Your task to perform on an android device: Go to Android settings Image 0: 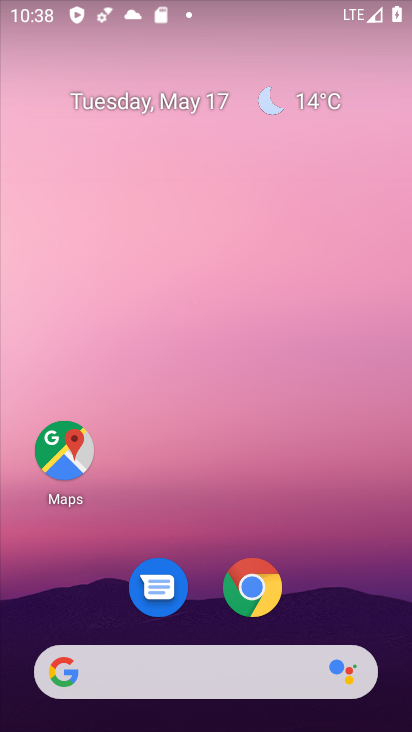
Step 0: drag from (327, 558) to (290, 346)
Your task to perform on an android device: Go to Android settings Image 1: 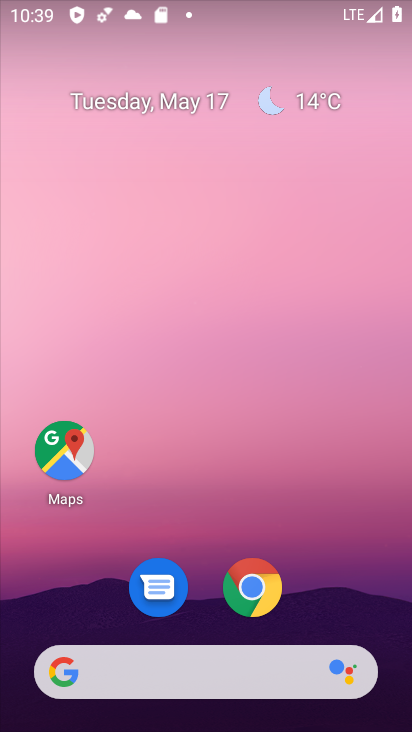
Step 1: drag from (325, 565) to (256, 270)
Your task to perform on an android device: Go to Android settings Image 2: 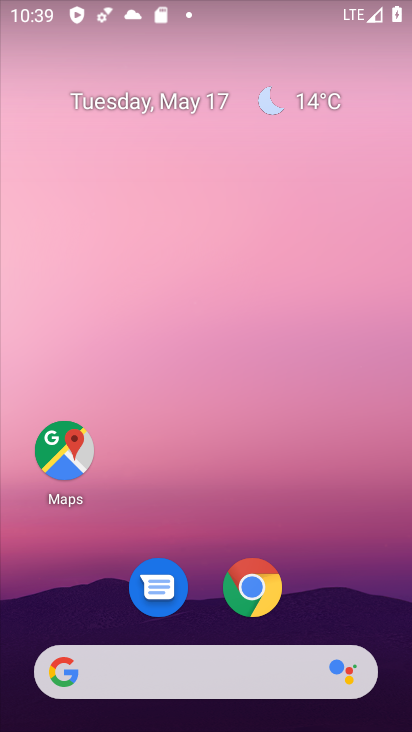
Step 2: drag from (334, 573) to (258, 294)
Your task to perform on an android device: Go to Android settings Image 3: 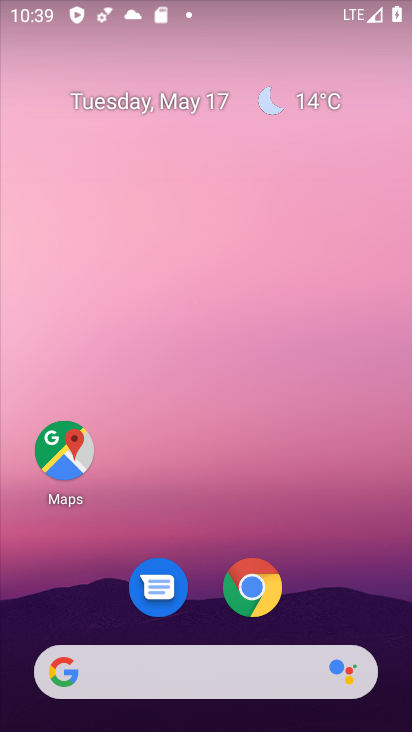
Step 3: drag from (335, 551) to (226, 138)
Your task to perform on an android device: Go to Android settings Image 4: 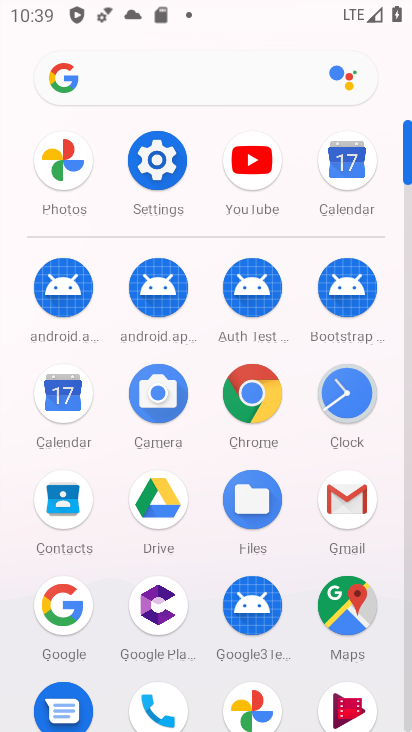
Step 4: click (168, 169)
Your task to perform on an android device: Go to Android settings Image 5: 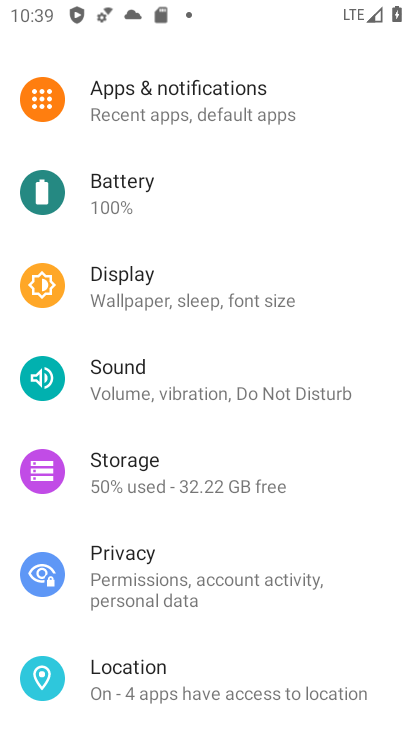
Step 5: drag from (311, 638) to (273, 77)
Your task to perform on an android device: Go to Android settings Image 6: 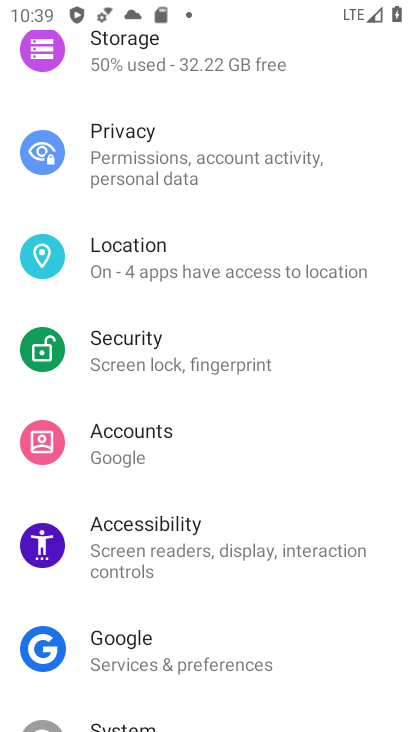
Step 6: drag from (303, 677) to (239, 176)
Your task to perform on an android device: Go to Android settings Image 7: 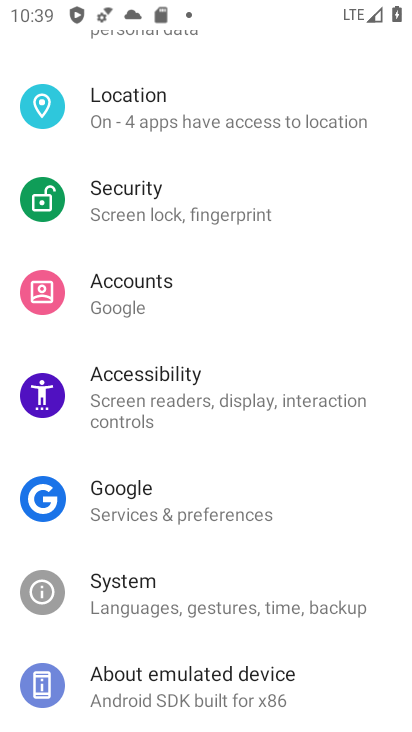
Step 7: click (229, 684)
Your task to perform on an android device: Go to Android settings Image 8: 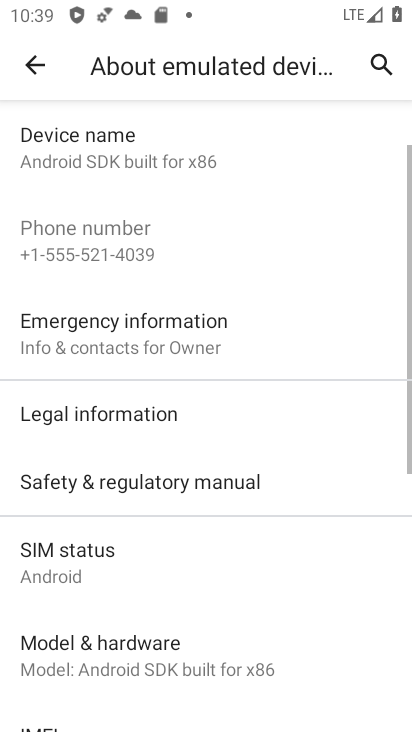
Step 8: drag from (326, 612) to (300, 292)
Your task to perform on an android device: Go to Android settings Image 9: 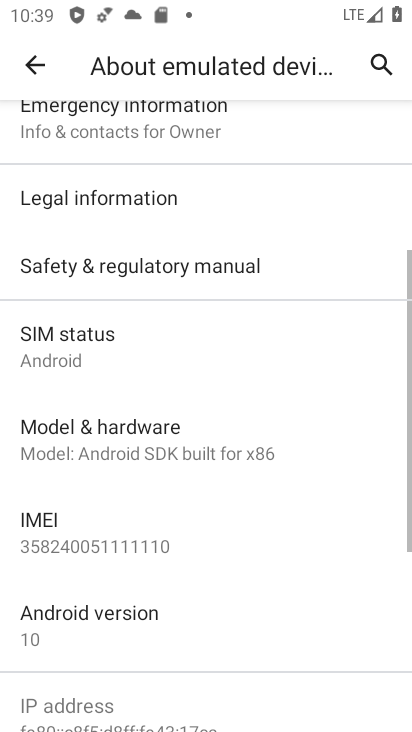
Step 9: click (112, 638)
Your task to perform on an android device: Go to Android settings Image 10: 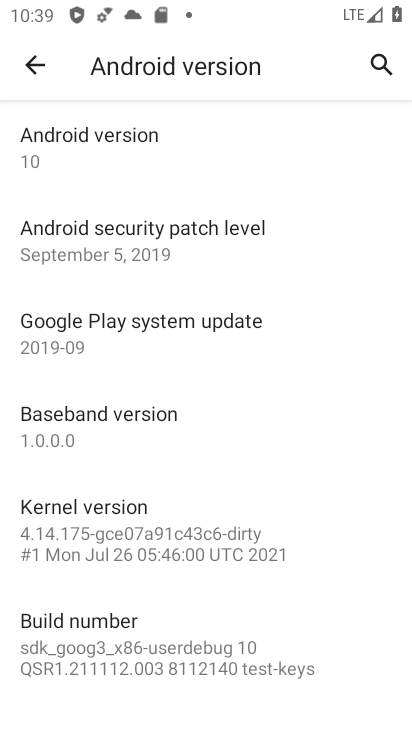
Step 10: task complete